Your task to perform on an android device: turn off data saver in the chrome app Image 0: 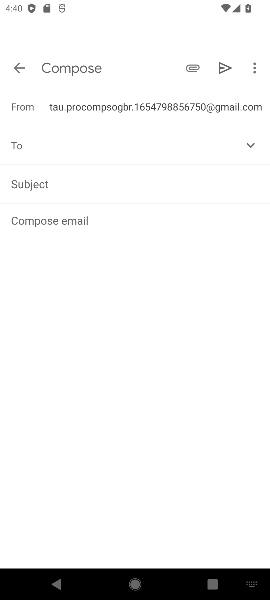
Step 0: press home button
Your task to perform on an android device: turn off data saver in the chrome app Image 1: 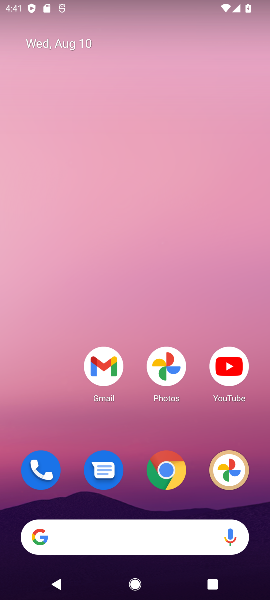
Step 1: click (176, 484)
Your task to perform on an android device: turn off data saver in the chrome app Image 2: 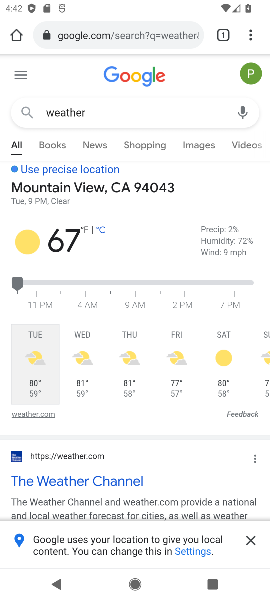
Step 2: drag from (249, 34) to (131, 424)
Your task to perform on an android device: turn off data saver in the chrome app Image 3: 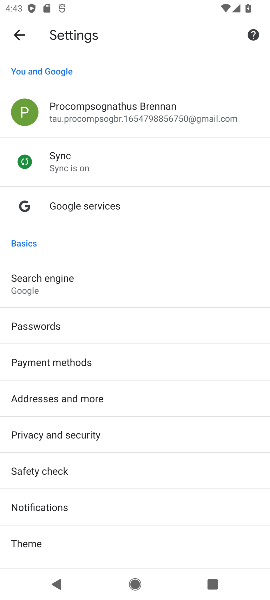
Step 3: drag from (110, 492) to (112, 202)
Your task to perform on an android device: turn off data saver in the chrome app Image 4: 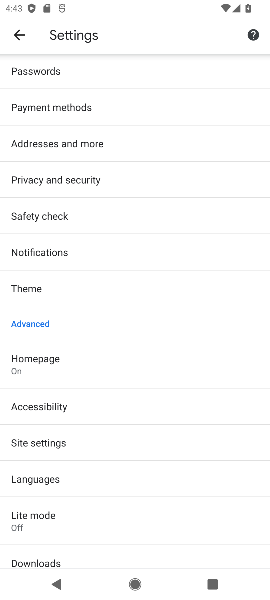
Step 4: click (82, 507)
Your task to perform on an android device: turn off data saver in the chrome app Image 5: 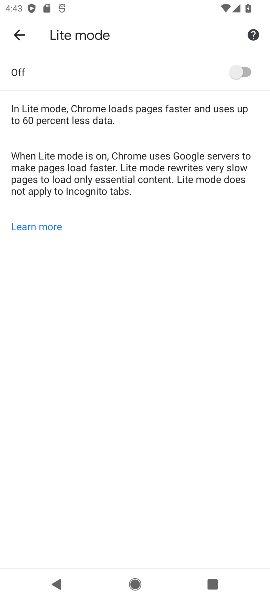
Step 5: task complete